Your task to perform on an android device: manage bookmarks in the chrome app Image 0: 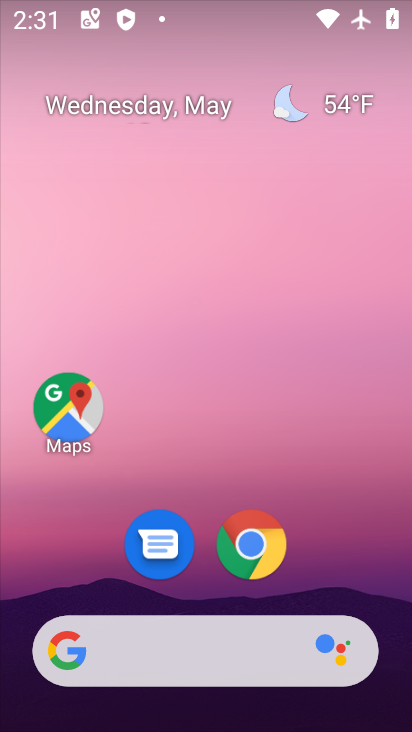
Step 0: click (267, 557)
Your task to perform on an android device: manage bookmarks in the chrome app Image 1: 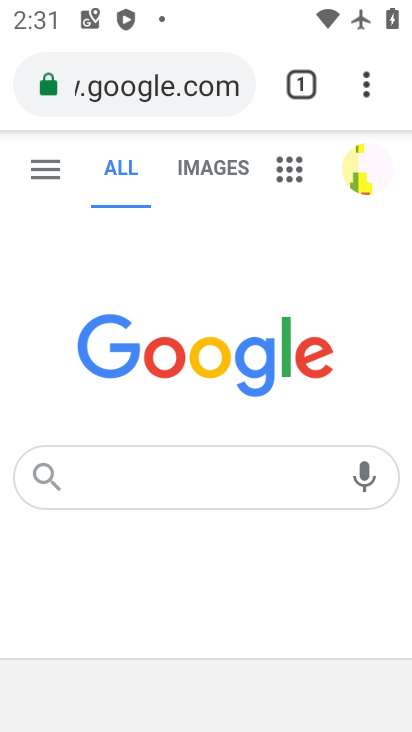
Step 1: click (373, 87)
Your task to perform on an android device: manage bookmarks in the chrome app Image 2: 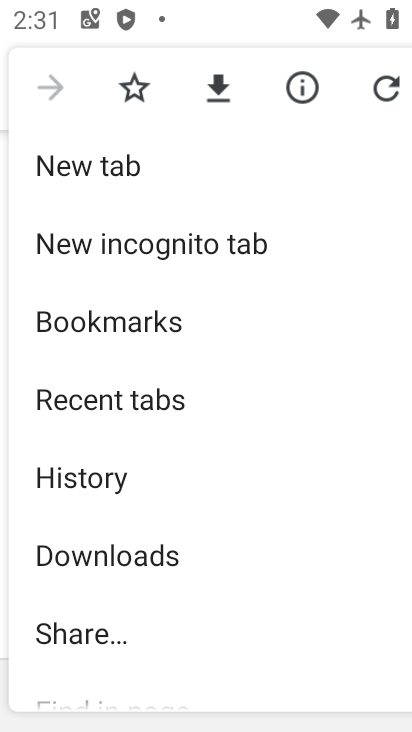
Step 2: click (216, 319)
Your task to perform on an android device: manage bookmarks in the chrome app Image 3: 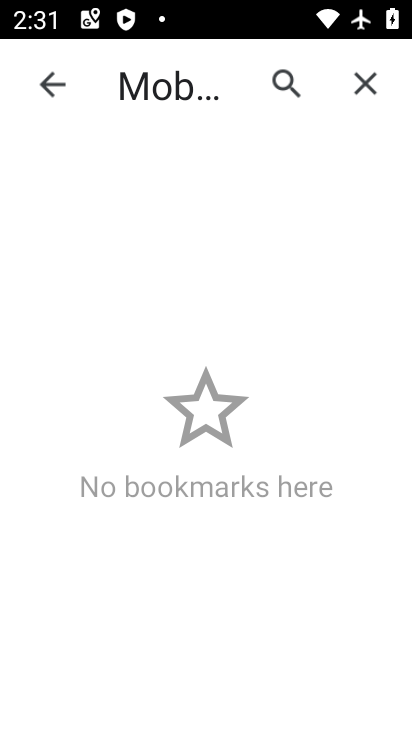
Step 3: task complete